Your task to perform on an android device: Turn off the flashlight Image 0: 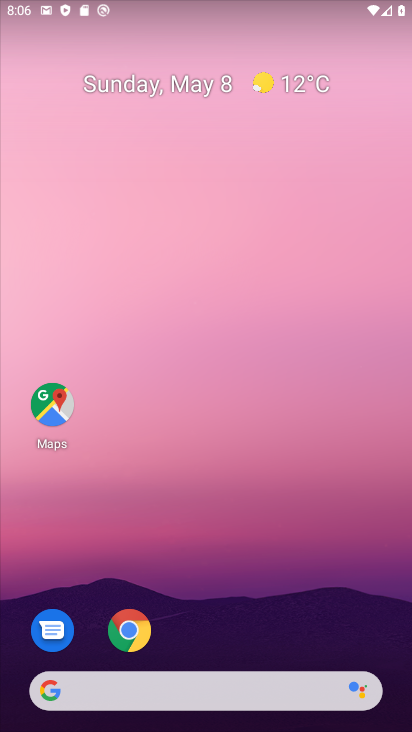
Step 0: drag from (218, 625) to (249, 324)
Your task to perform on an android device: Turn off the flashlight Image 1: 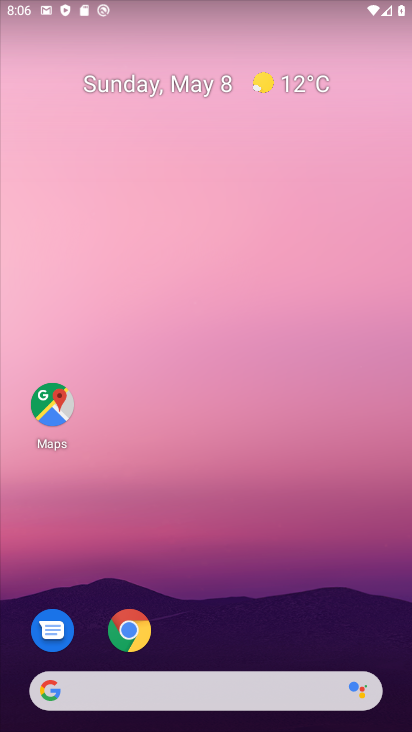
Step 1: drag from (257, 608) to (315, 123)
Your task to perform on an android device: Turn off the flashlight Image 2: 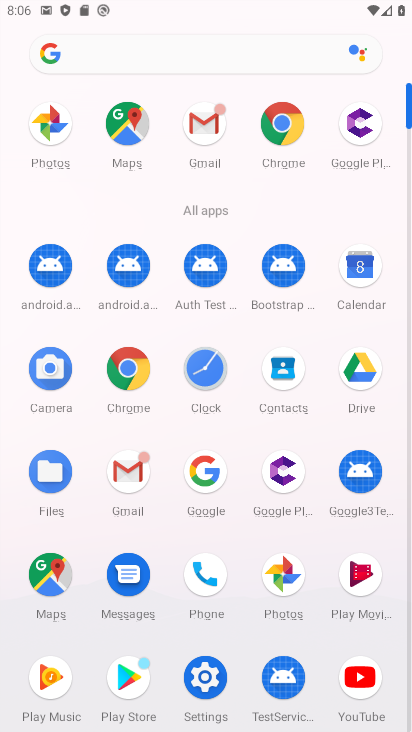
Step 2: click (223, 666)
Your task to perform on an android device: Turn off the flashlight Image 3: 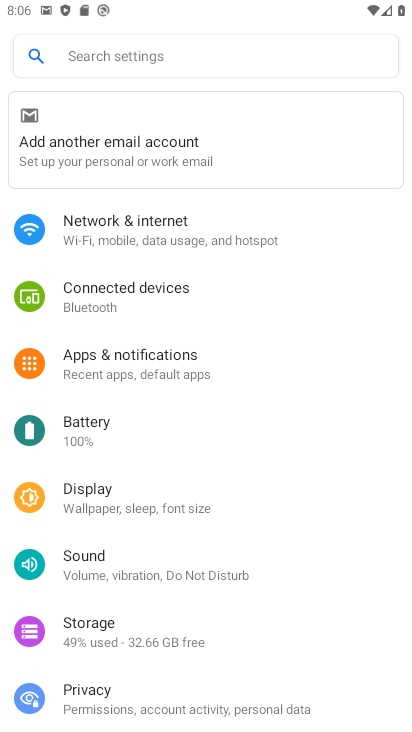
Step 3: click (141, 359)
Your task to perform on an android device: Turn off the flashlight Image 4: 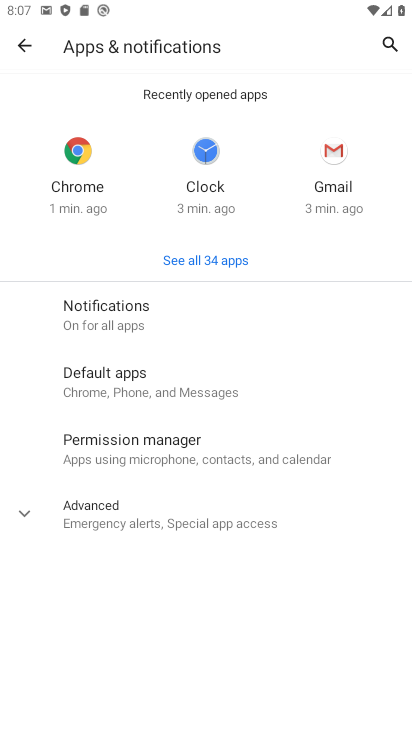
Step 4: click (223, 523)
Your task to perform on an android device: Turn off the flashlight Image 5: 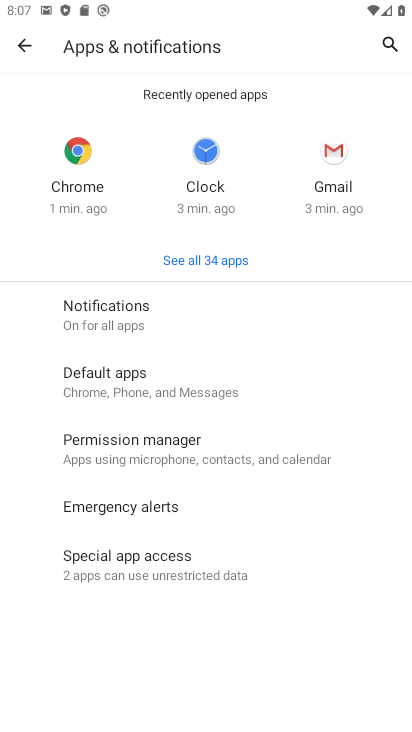
Step 5: task complete